Your task to perform on an android device: change notification settings in the gmail app Image 0: 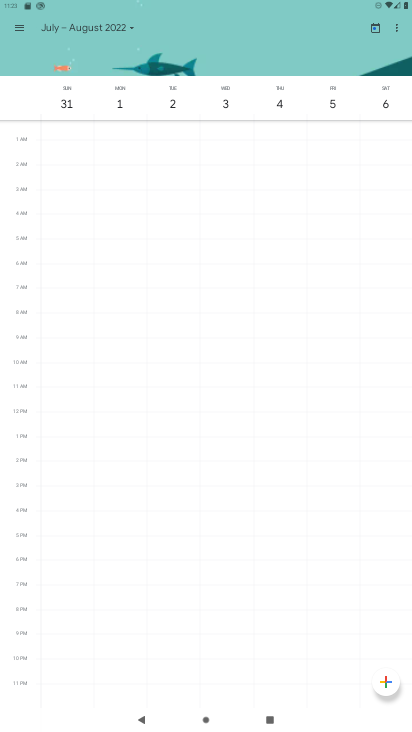
Step 0: press home button
Your task to perform on an android device: change notification settings in the gmail app Image 1: 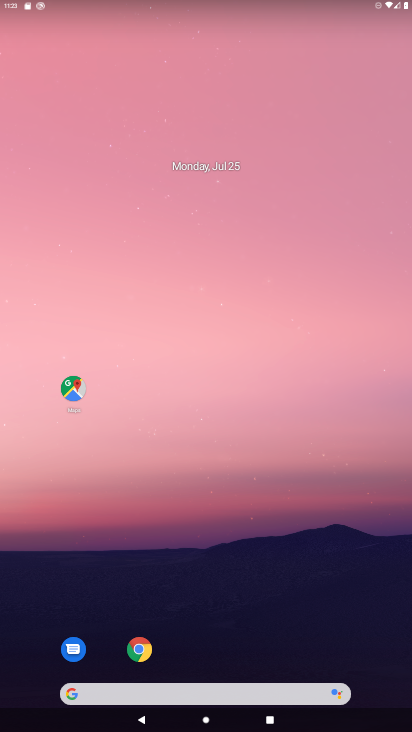
Step 1: drag from (358, 649) to (335, 146)
Your task to perform on an android device: change notification settings in the gmail app Image 2: 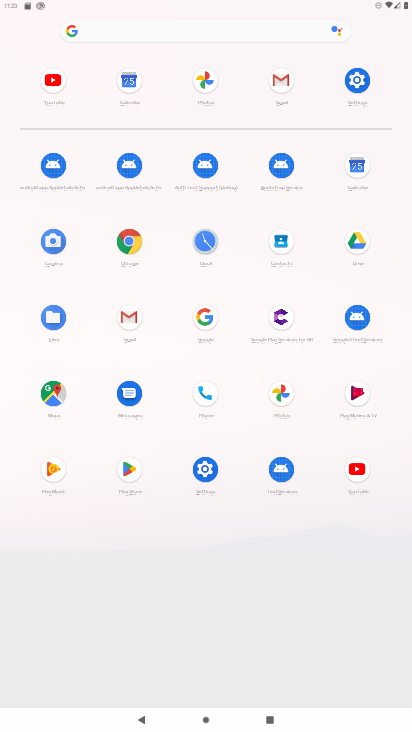
Step 2: click (127, 316)
Your task to perform on an android device: change notification settings in the gmail app Image 3: 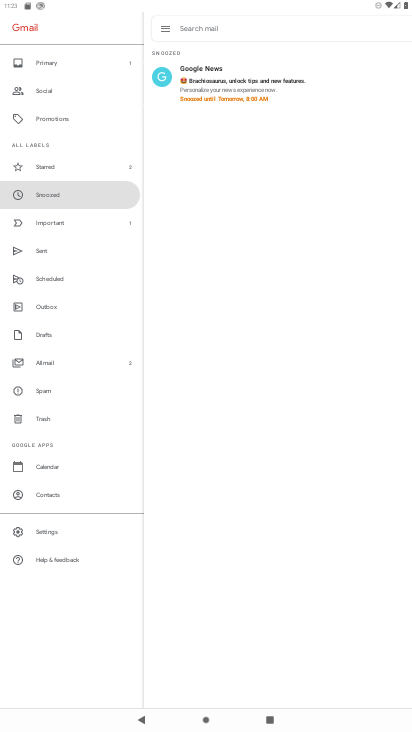
Step 3: click (45, 526)
Your task to perform on an android device: change notification settings in the gmail app Image 4: 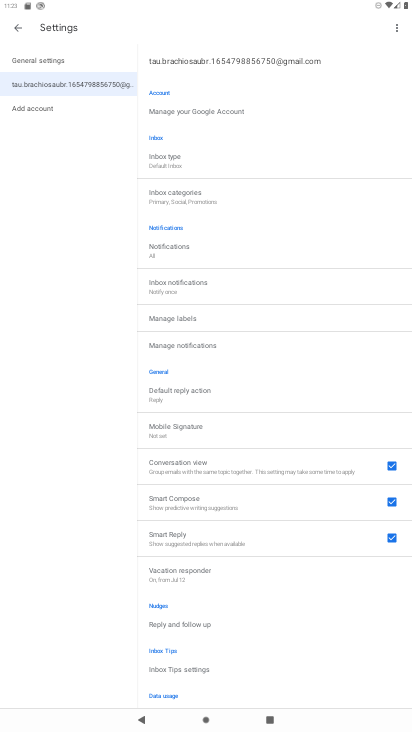
Step 4: click (178, 345)
Your task to perform on an android device: change notification settings in the gmail app Image 5: 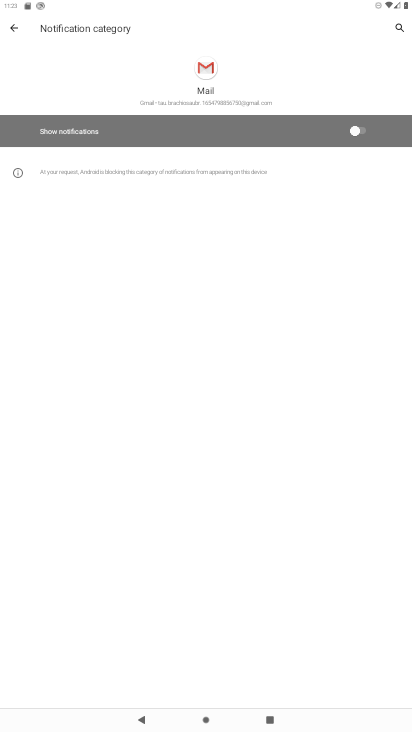
Step 5: click (362, 132)
Your task to perform on an android device: change notification settings in the gmail app Image 6: 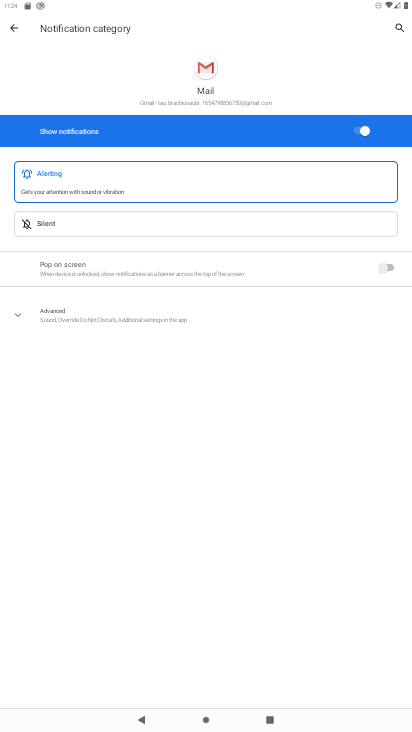
Step 6: task complete